Your task to perform on an android device: open chrome privacy settings Image 0: 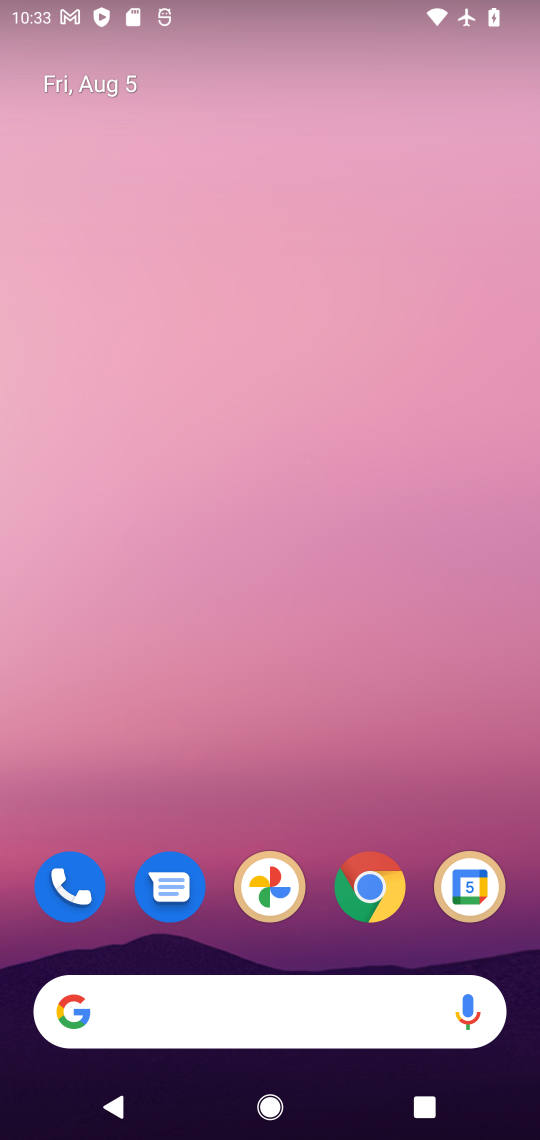
Step 0: press home button
Your task to perform on an android device: open chrome privacy settings Image 1: 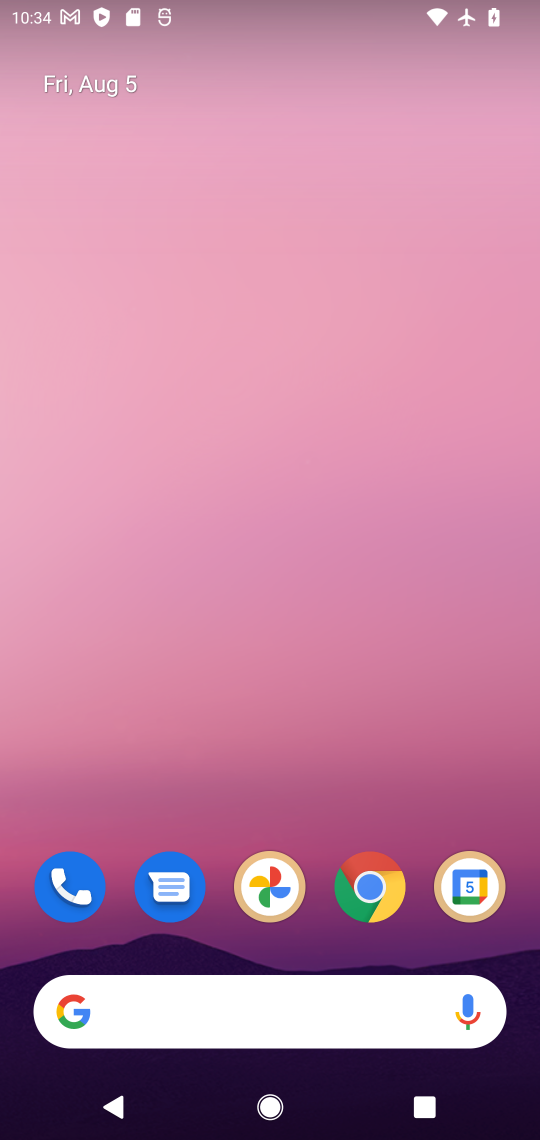
Step 1: drag from (218, 943) to (312, 35)
Your task to perform on an android device: open chrome privacy settings Image 2: 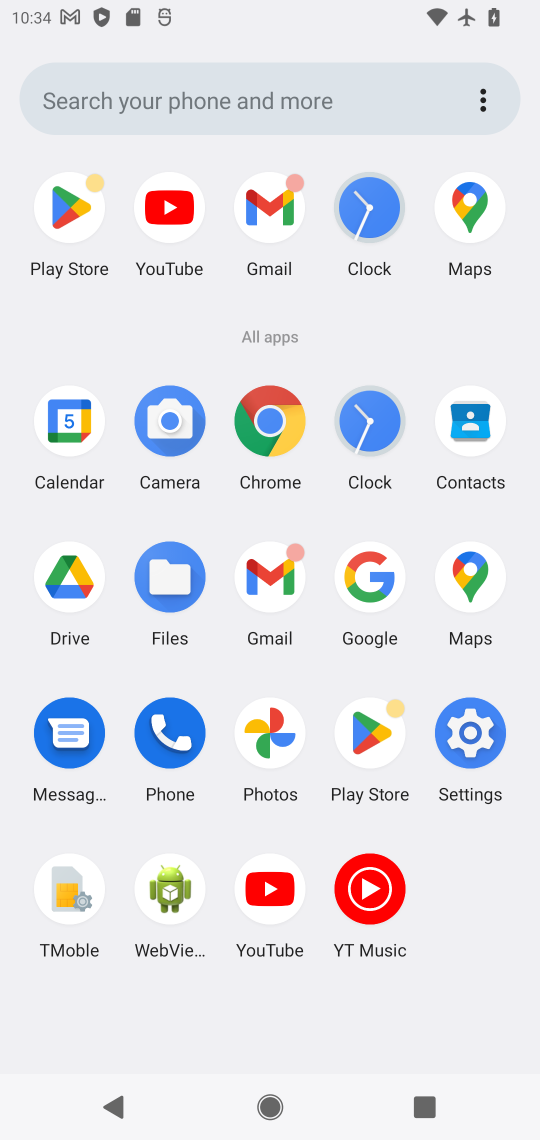
Step 2: click (470, 736)
Your task to perform on an android device: open chrome privacy settings Image 3: 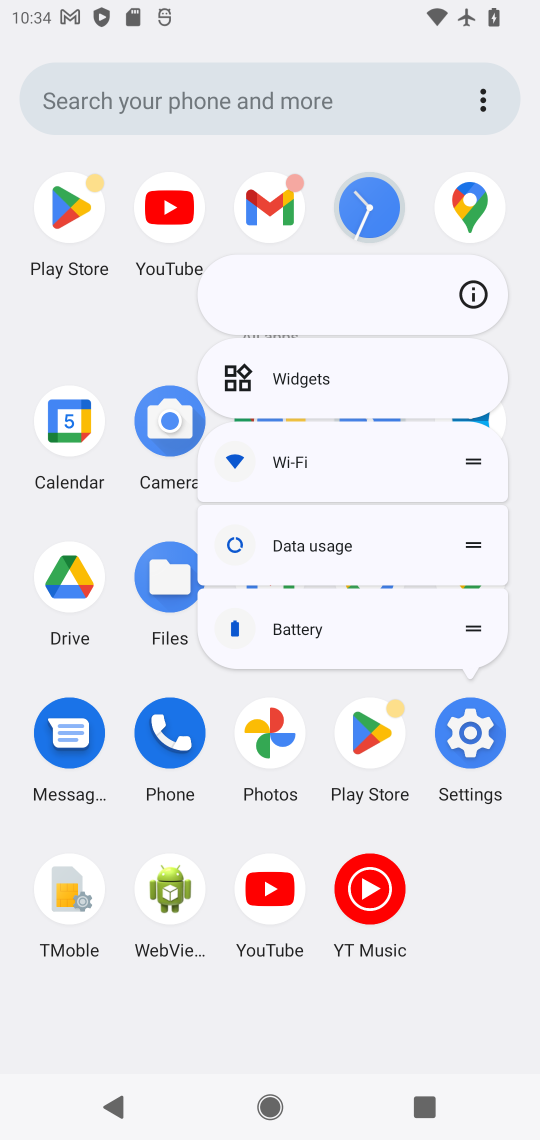
Step 3: click (470, 736)
Your task to perform on an android device: open chrome privacy settings Image 4: 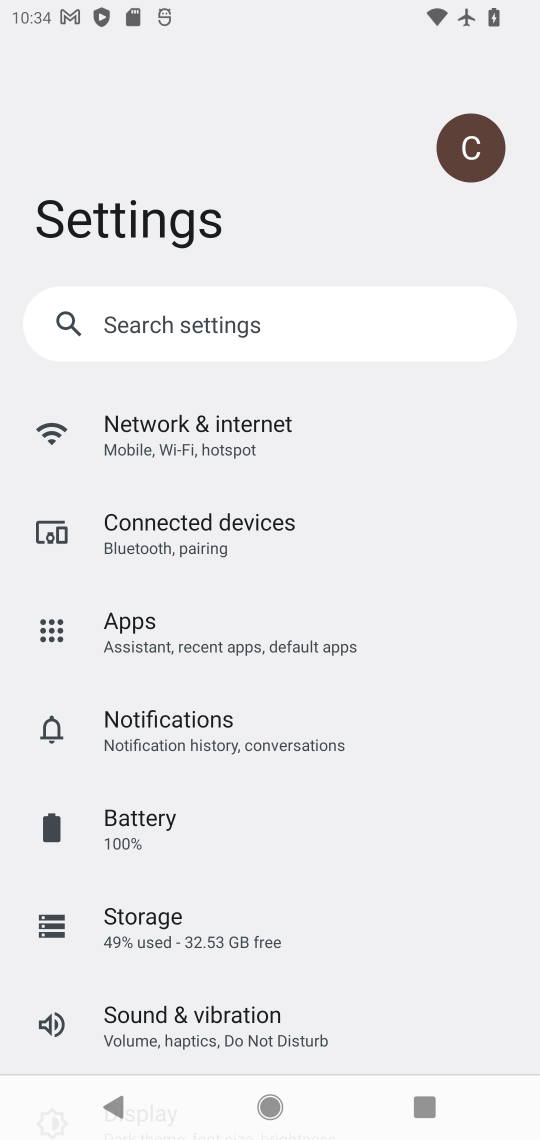
Step 4: press back button
Your task to perform on an android device: open chrome privacy settings Image 5: 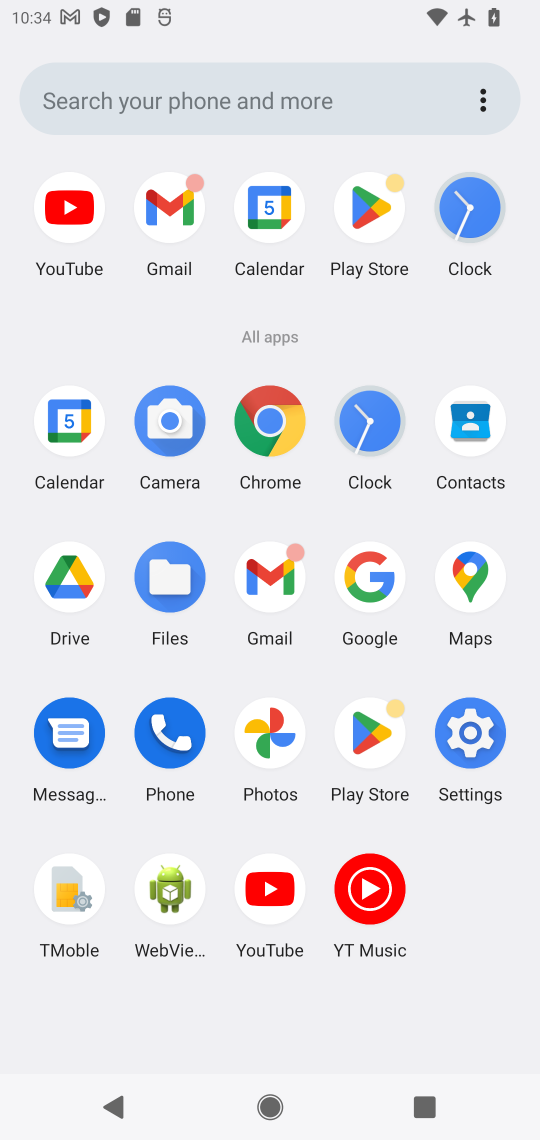
Step 5: click (269, 418)
Your task to perform on an android device: open chrome privacy settings Image 6: 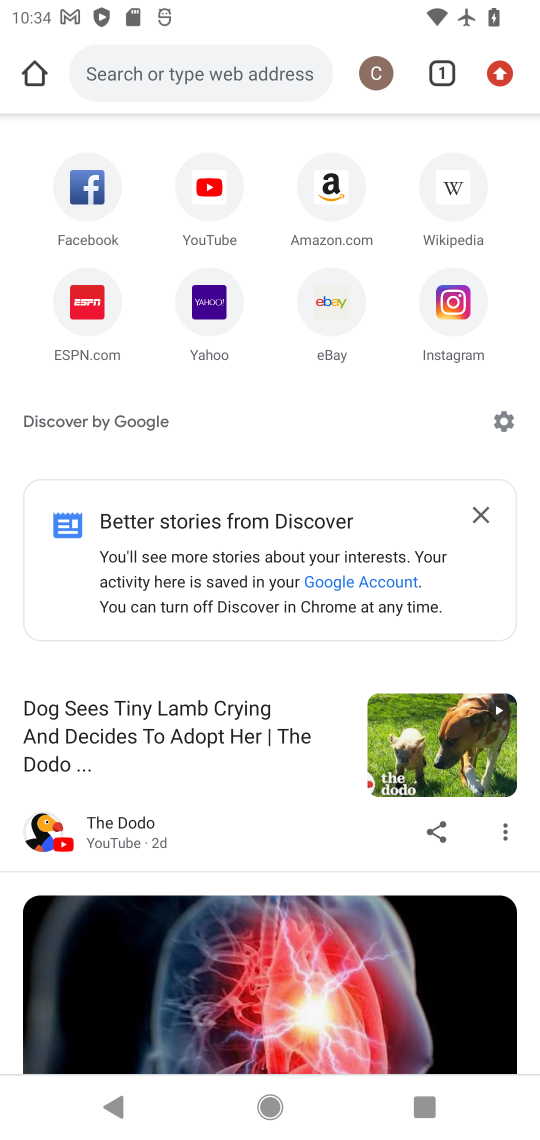
Step 6: drag from (496, 68) to (285, 760)
Your task to perform on an android device: open chrome privacy settings Image 7: 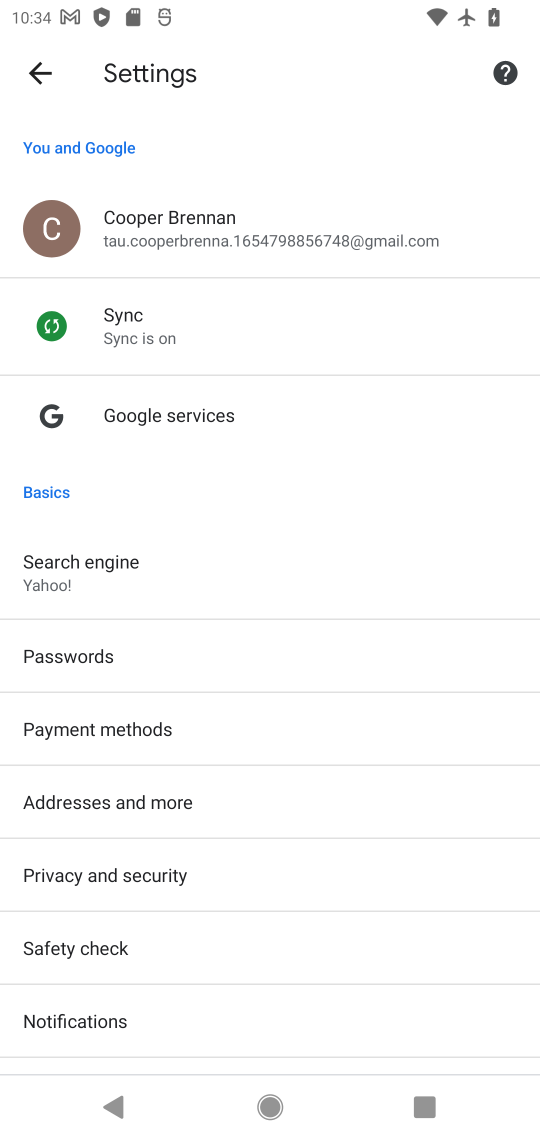
Step 7: drag from (257, 931) to (308, 487)
Your task to perform on an android device: open chrome privacy settings Image 8: 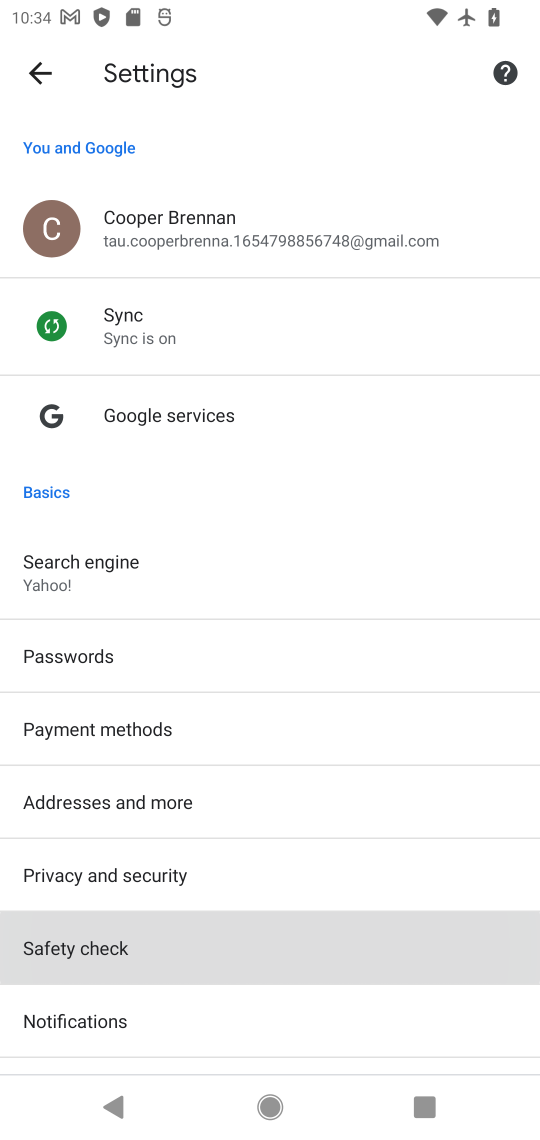
Step 8: click (136, 875)
Your task to perform on an android device: open chrome privacy settings Image 9: 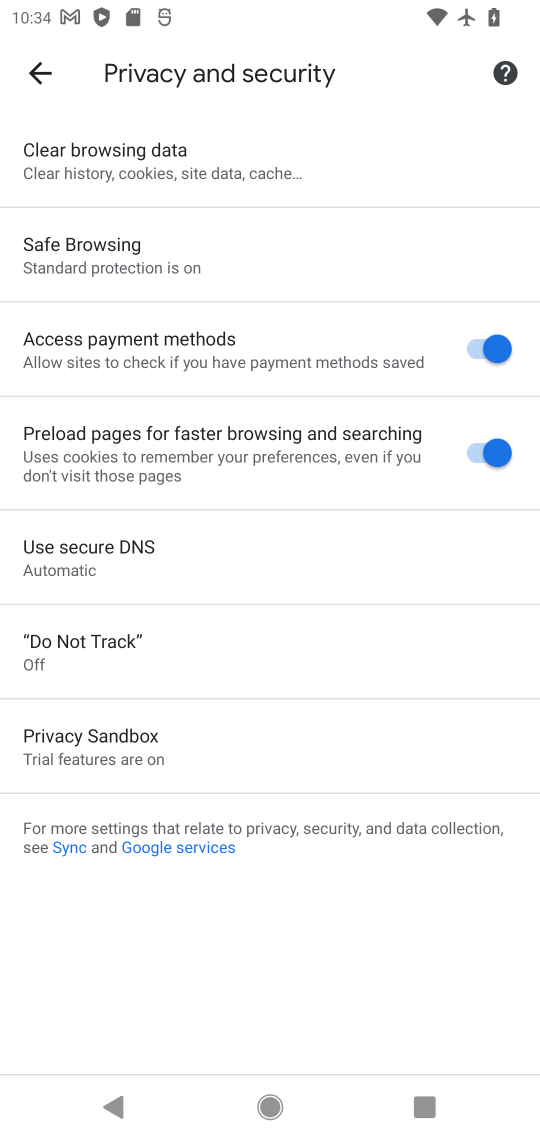
Step 9: task complete